Your task to perform on an android device: Go to notification settings Image 0: 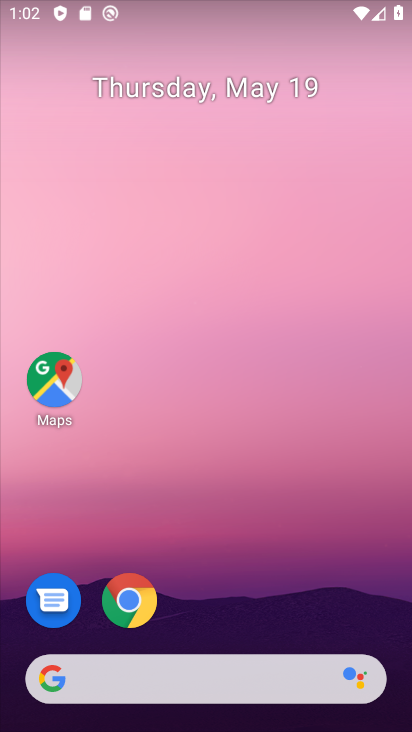
Step 0: drag from (327, 604) to (300, 71)
Your task to perform on an android device: Go to notification settings Image 1: 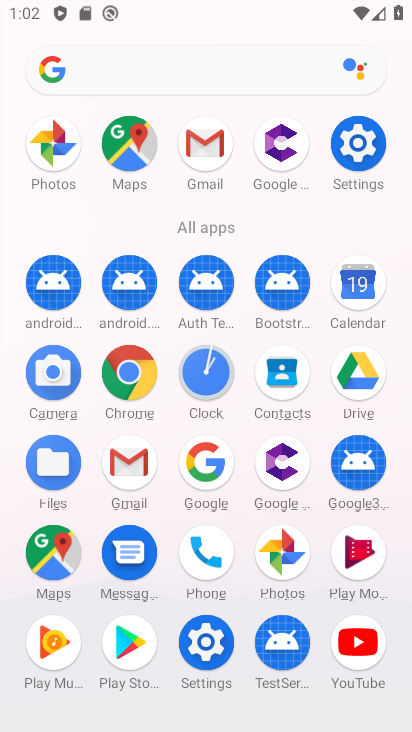
Step 1: drag from (236, 239) to (232, 69)
Your task to perform on an android device: Go to notification settings Image 2: 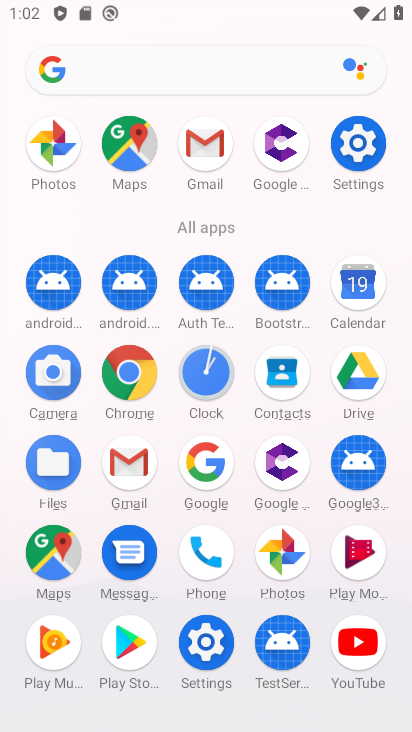
Step 2: click (207, 642)
Your task to perform on an android device: Go to notification settings Image 3: 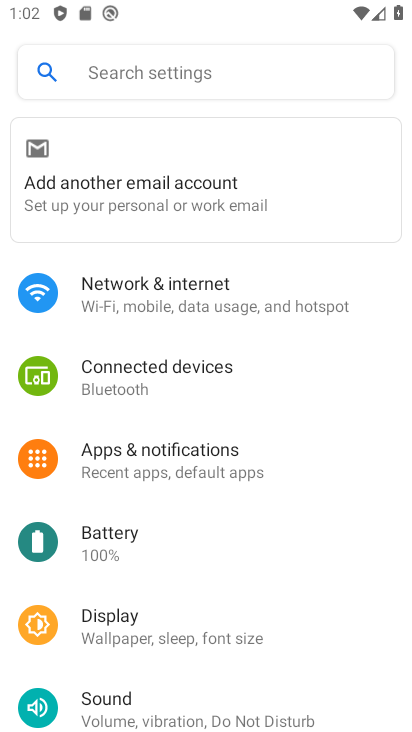
Step 3: click (180, 448)
Your task to perform on an android device: Go to notification settings Image 4: 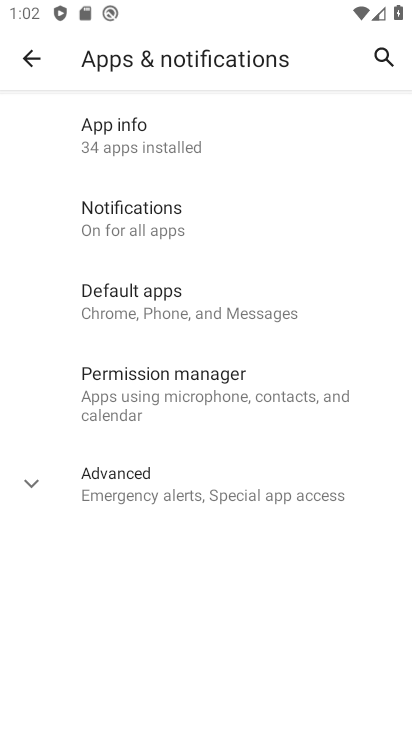
Step 4: click (131, 218)
Your task to perform on an android device: Go to notification settings Image 5: 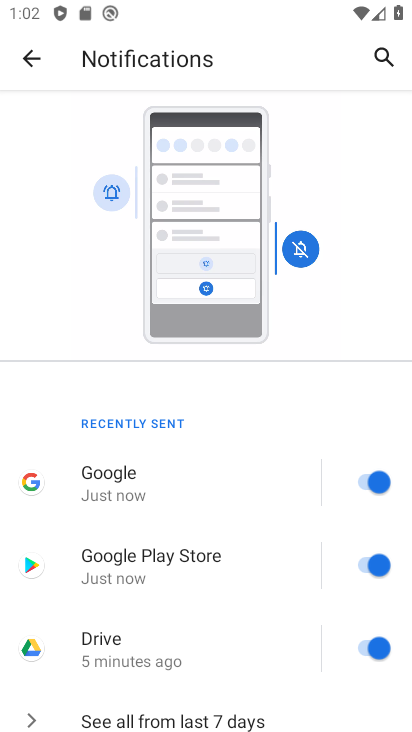
Step 5: task complete